Your task to perform on an android device: Open the map Image 0: 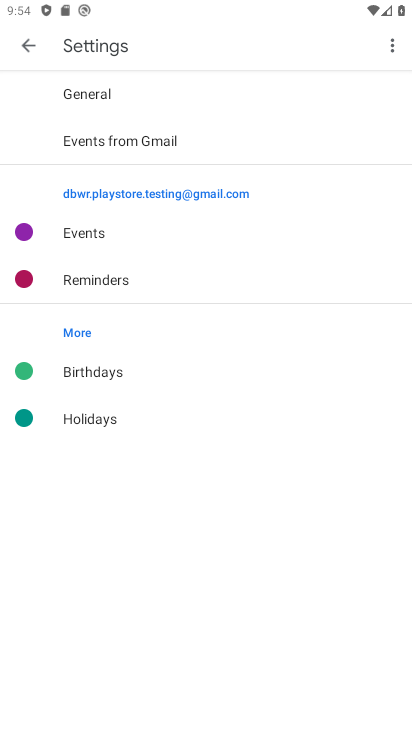
Step 0: press home button
Your task to perform on an android device: Open the map Image 1: 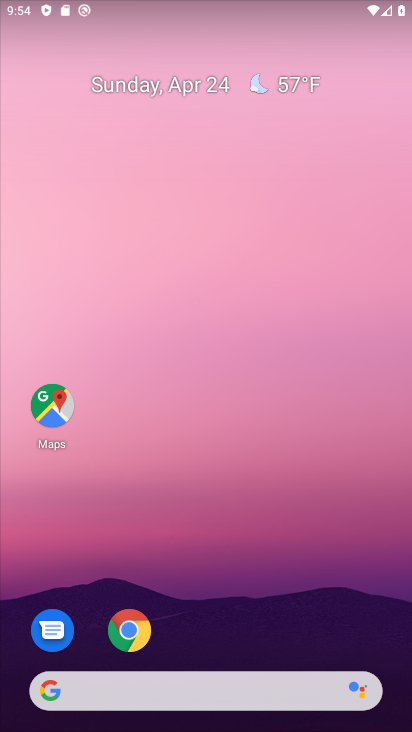
Step 1: click (50, 407)
Your task to perform on an android device: Open the map Image 2: 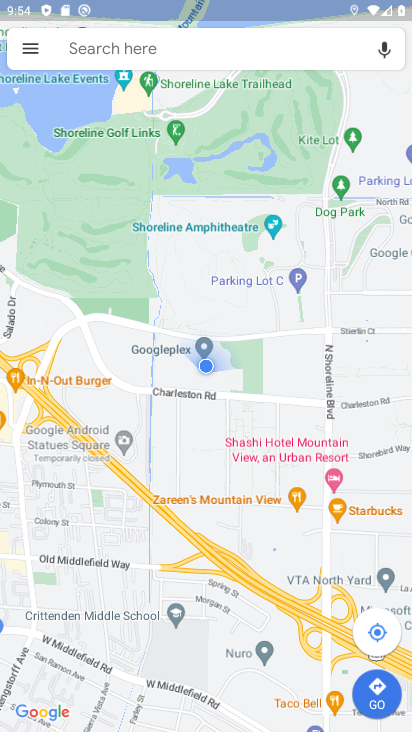
Step 2: task complete